Your task to perform on an android device: toggle priority inbox in the gmail app Image 0: 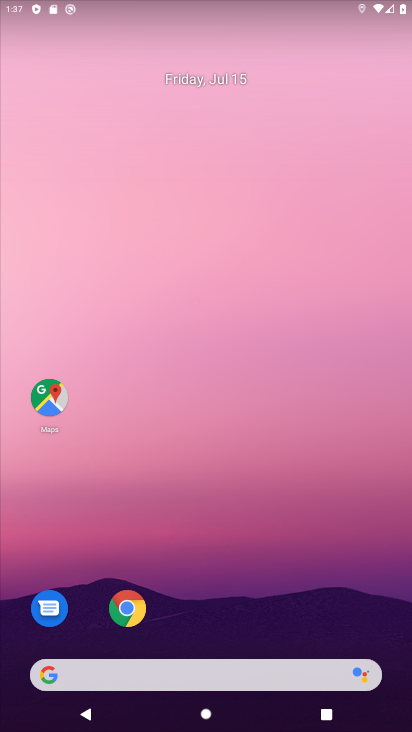
Step 0: drag from (209, 664) to (205, 100)
Your task to perform on an android device: toggle priority inbox in the gmail app Image 1: 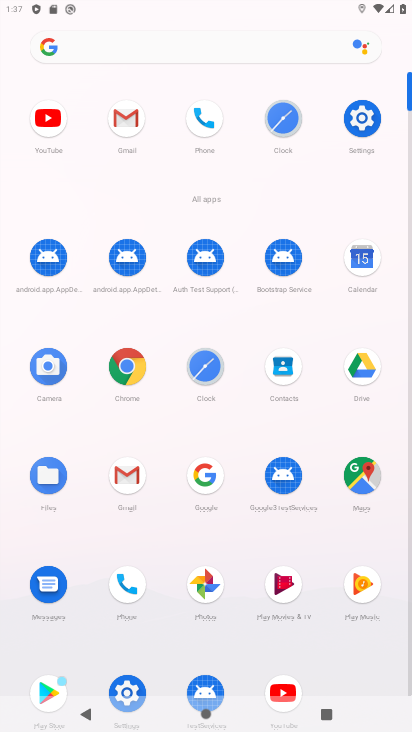
Step 1: click (119, 479)
Your task to perform on an android device: toggle priority inbox in the gmail app Image 2: 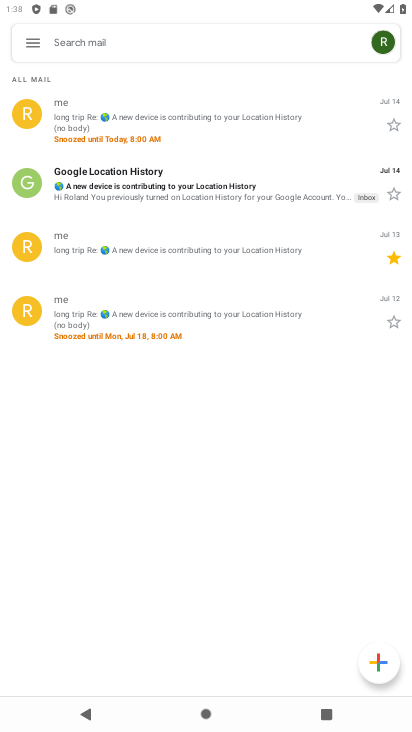
Step 2: click (34, 48)
Your task to perform on an android device: toggle priority inbox in the gmail app Image 3: 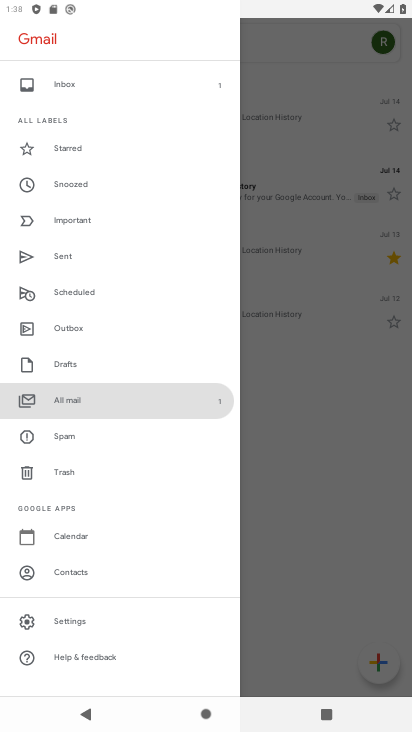
Step 3: click (64, 617)
Your task to perform on an android device: toggle priority inbox in the gmail app Image 4: 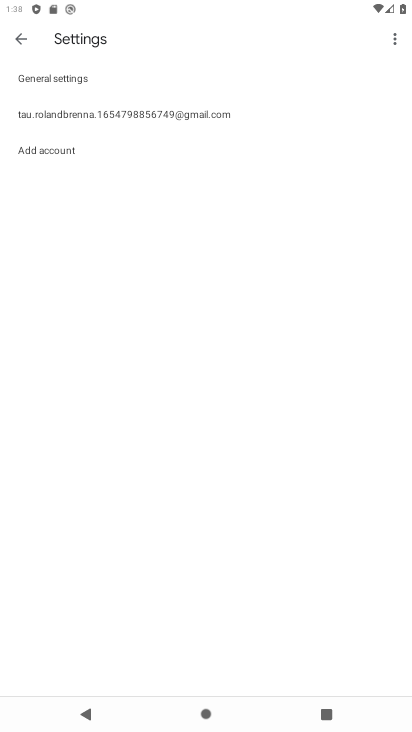
Step 4: click (87, 110)
Your task to perform on an android device: toggle priority inbox in the gmail app Image 5: 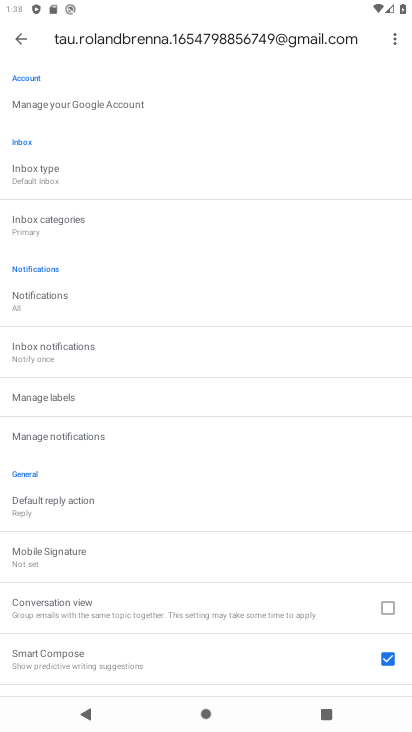
Step 5: click (41, 187)
Your task to perform on an android device: toggle priority inbox in the gmail app Image 6: 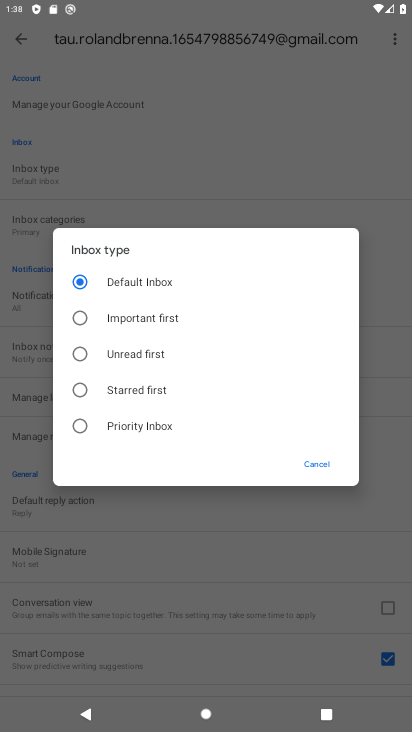
Step 6: click (129, 426)
Your task to perform on an android device: toggle priority inbox in the gmail app Image 7: 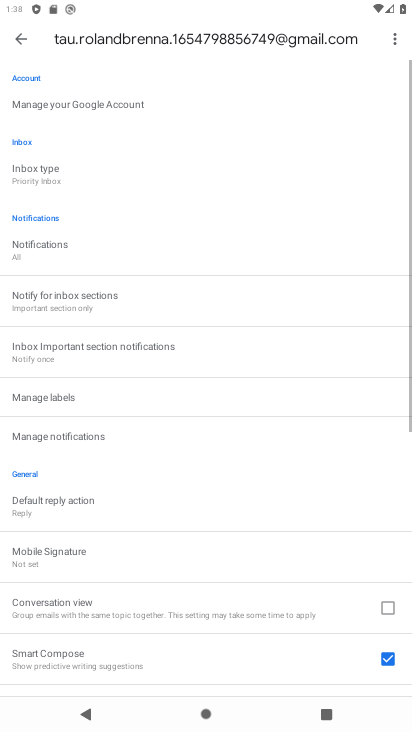
Step 7: task complete